Your task to perform on an android device: toggle notification dots Image 0: 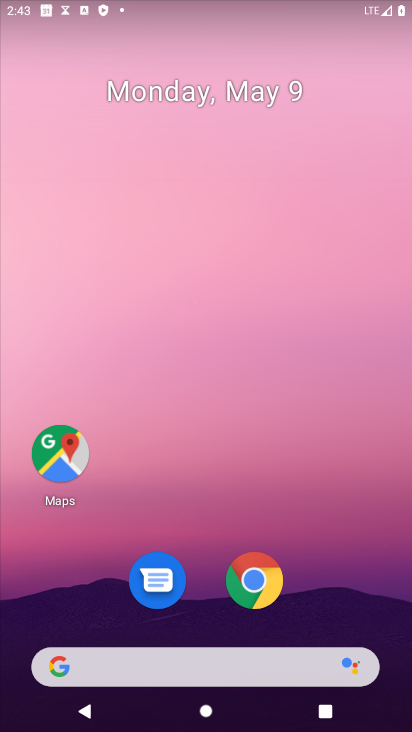
Step 0: drag from (337, 589) to (187, 63)
Your task to perform on an android device: toggle notification dots Image 1: 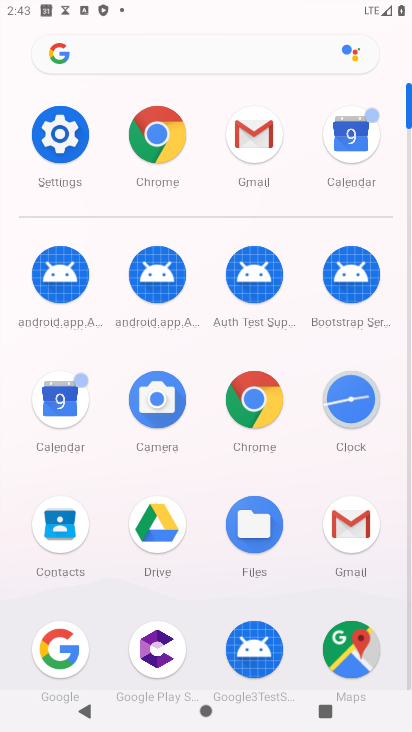
Step 1: click (76, 144)
Your task to perform on an android device: toggle notification dots Image 2: 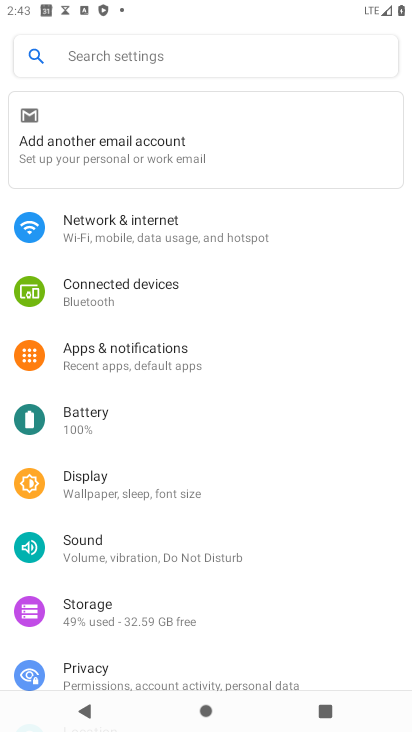
Step 2: click (135, 359)
Your task to perform on an android device: toggle notification dots Image 3: 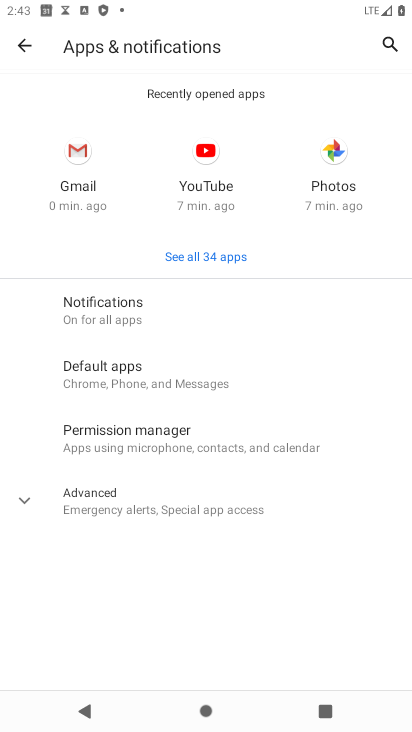
Step 3: click (141, 310)
Your task to perform on an android device: toggle notification dots Image 4: 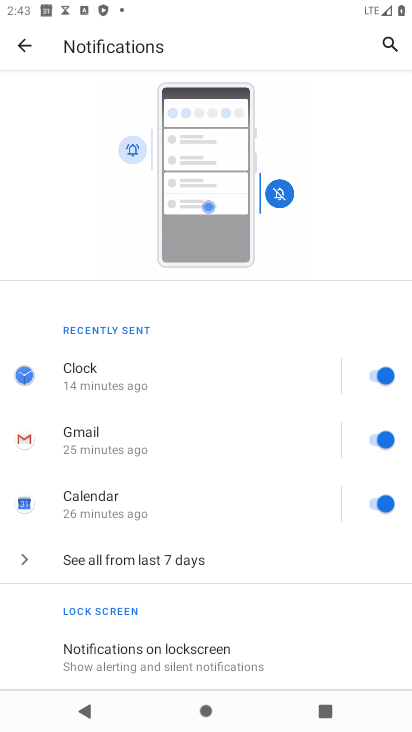
Step 4: drag from (181, 643) to (184, 219)
Your task to perform on an android device: toggle notification dots Image 5: 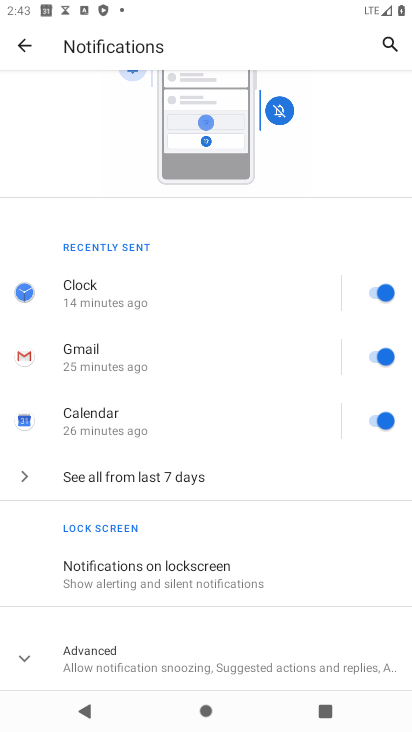
Step 5: click (147, 654)
Your task to perform on an android device: toggle notification dots Image 6: 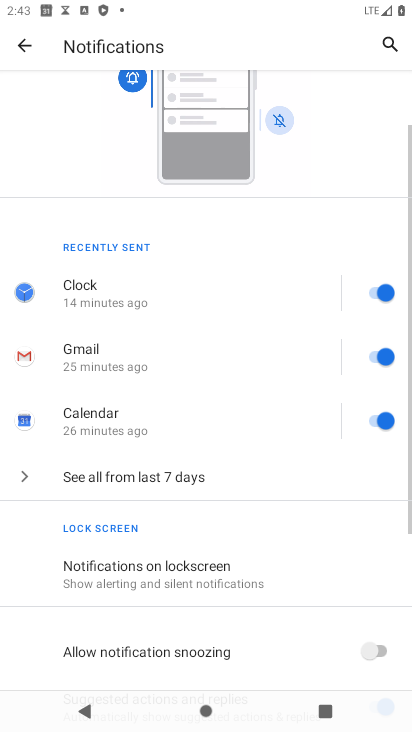
Step 6: drag from (133, 589) to (184, 155)
Your task to perform on an android device: toggle notification dots Image 7: 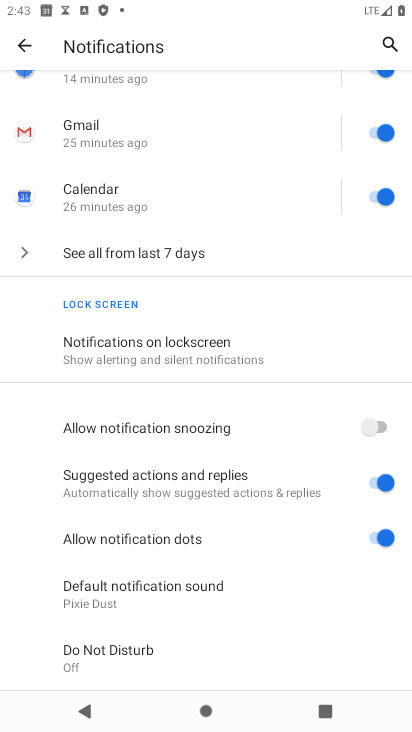
Step 7: click (384, 532)
Your task to perform on an android device: toggle notification dots Image 8: 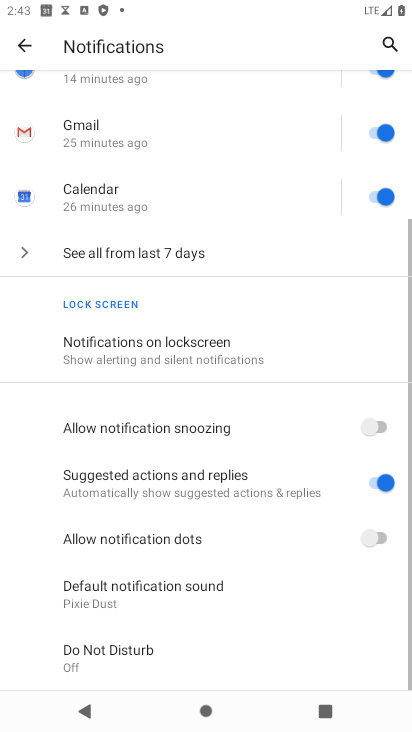
Step 8: task complete